Your task to perform on an android device: open device folders in google photos Image 0: 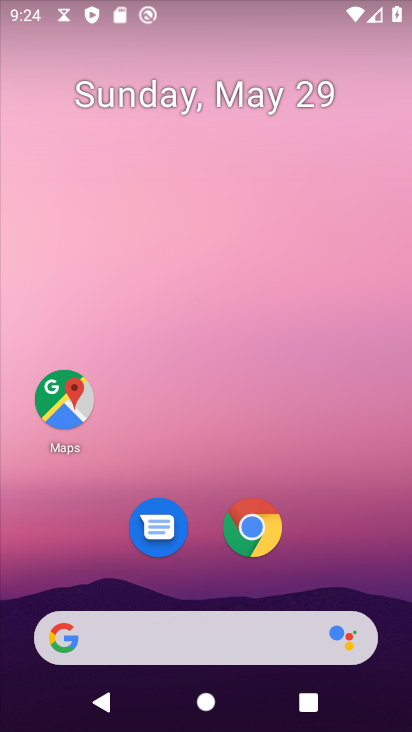
Step 0: press home button
Your task to perform on an android device: open device folders in google photos Image 1: 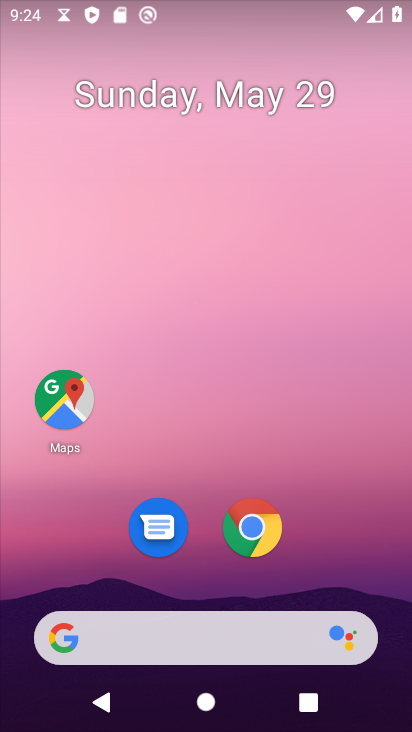
Step 1: drag from (215, 638) to (352, 118)
Your task to perform on an android device: open device folders in google photos Image 2: 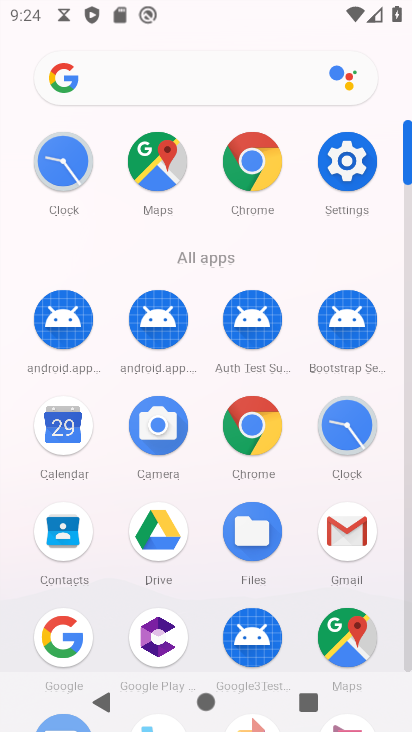
Step 2: drag from (295, 336) to (338, 103)
Your task to perform on an android device: open device folders in google photos Image 3: 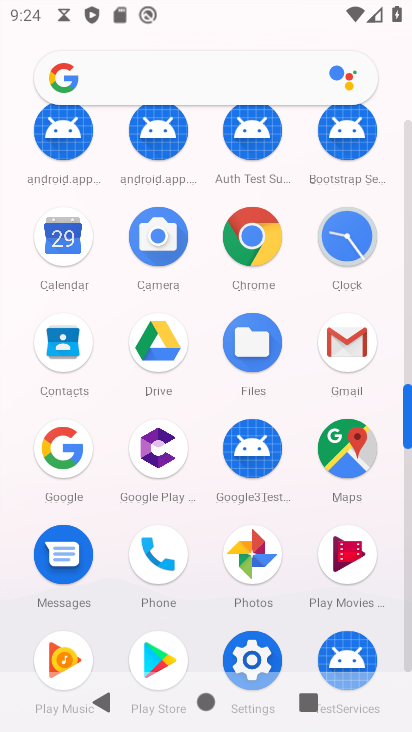
Step 3: click (254, 558)
Your task to perform on an android device: open device folders in google photos Image 4: 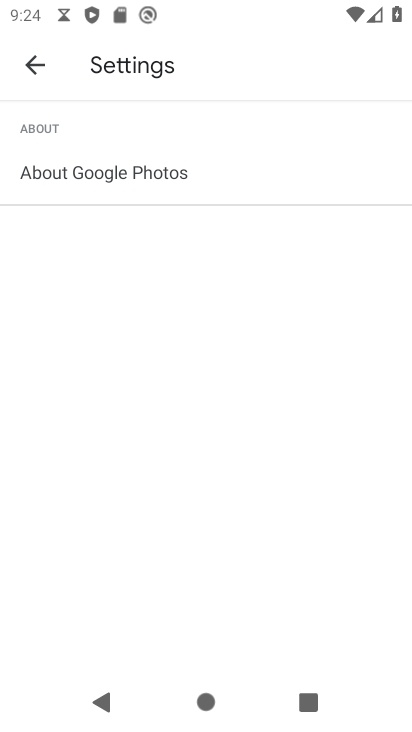
Step 4: click (40, 56)
Your task to perform on an android device: open device folders in google photos Image 5: 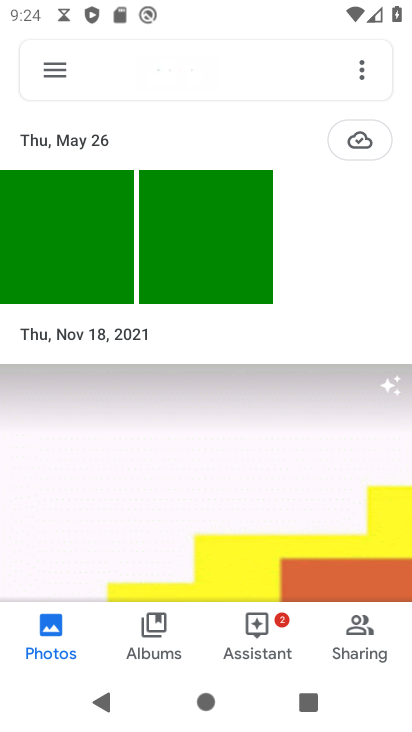
Step 5: click (47, 76)
Your task to perform on an android device: open device folders in google photos Image 6: 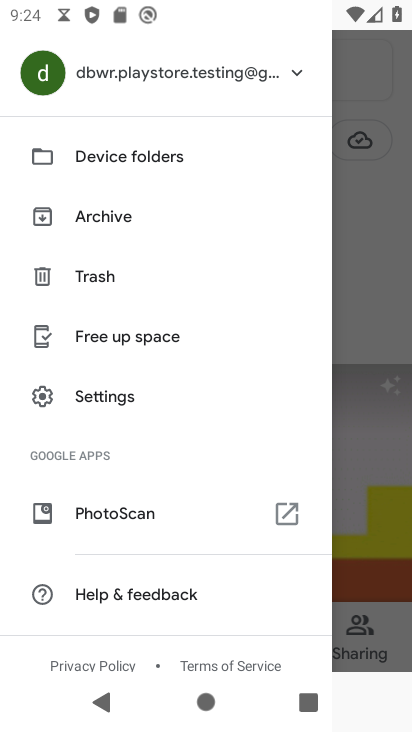
Step 6: click (105, 165)
Your task to perform on an android device: open device folders in google photos Image 7: 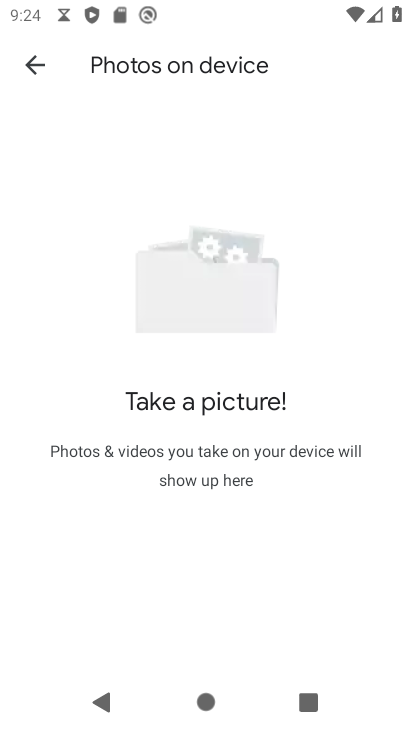
Step 7: task complete